Your task to perform on an android device: add a contact Image 0: 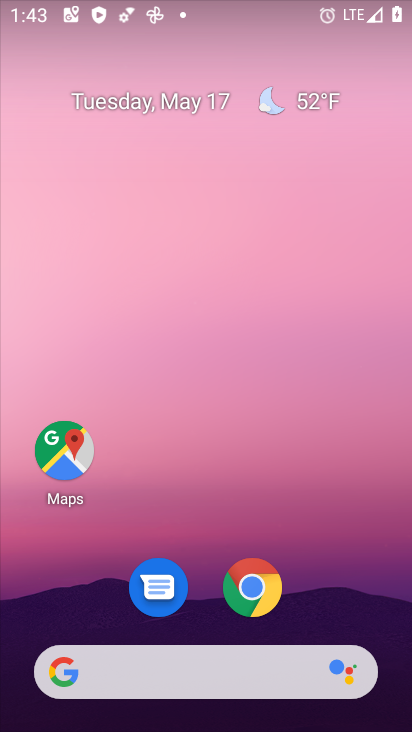
Step 0: drag from (355, 573) to (239, 178)
Your task to perform on an android device: add a contact Image 1: 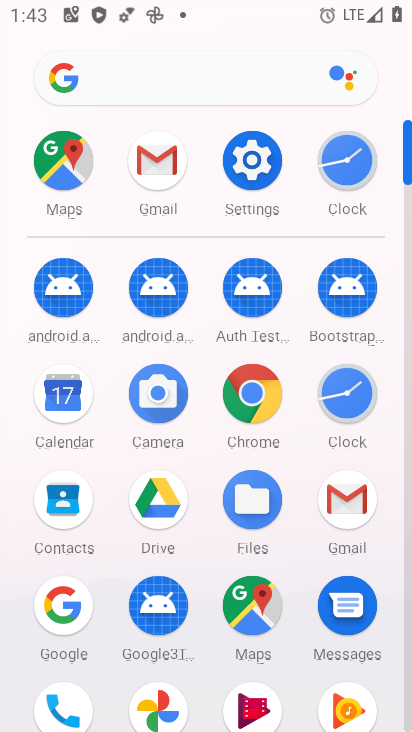
Step 1: click (74, 388)
Your task to perform on an android device: add a contact Image 2: 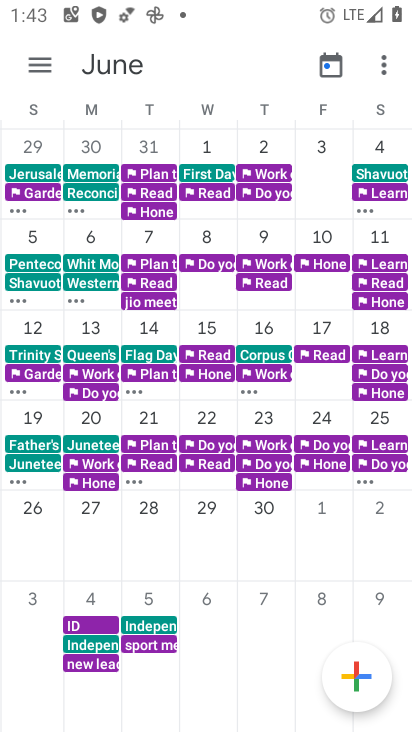
Step 2: press home button
Your task to perform on an android device: add a contact Image 3: 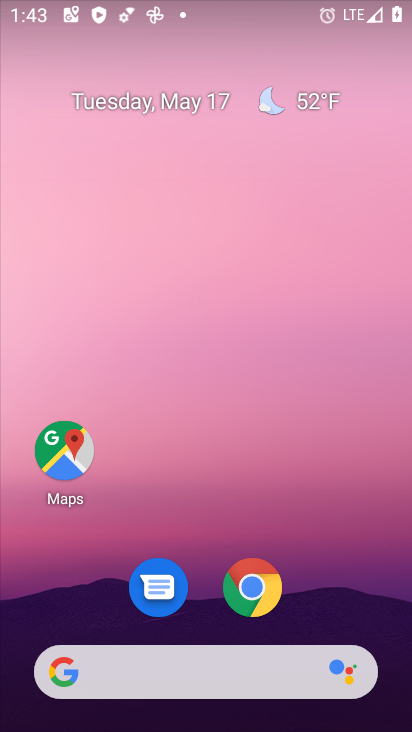
Step 3: drag from (333, 615) to (344, 202)
Your task to perform on an android device: add a contact Image 4: 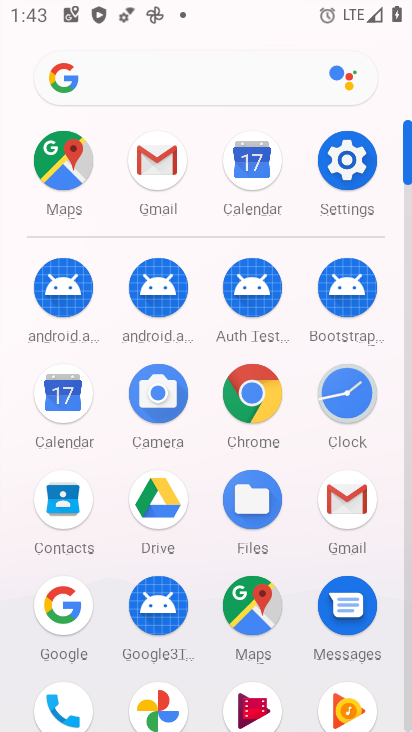
Step 4: click (61, 494)
Your task to perform on an android device: add a contact Image 5: 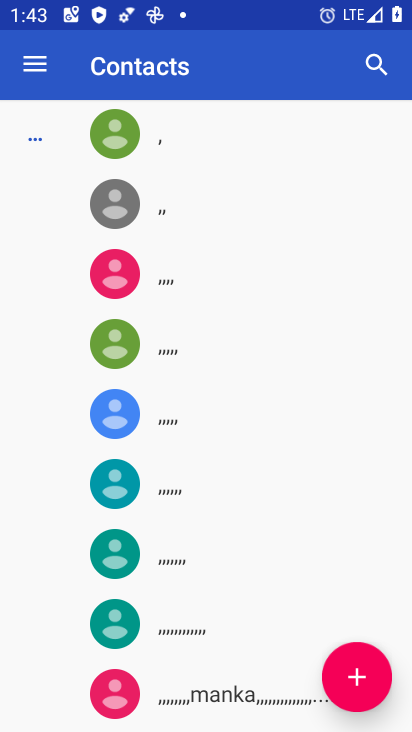
Step 5: click (371, 691)
Your task to perform on an android device: add a contact Image 6: 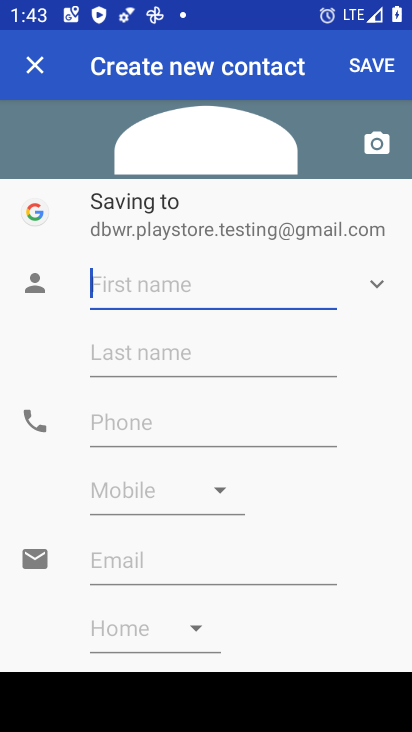
Step 6: type "dfsdfv"
Your task to perform on an android device: add a contact Image 7: 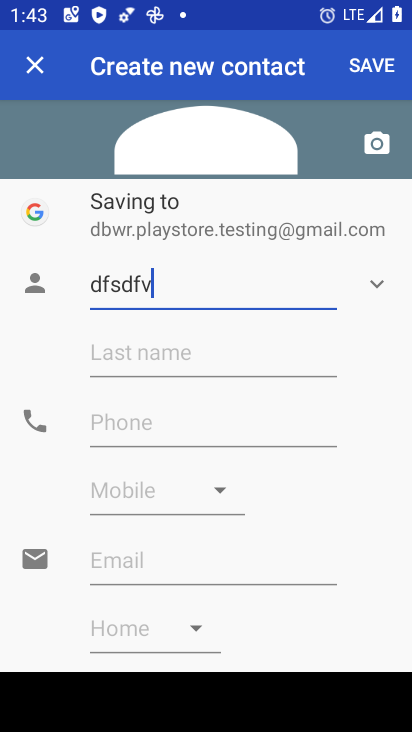
Step 7: click (187, 334)
Your task to perform on an android device: add a contact Image 8: 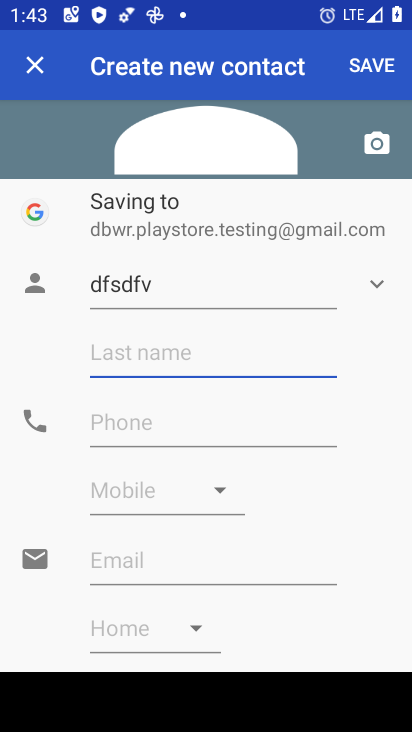
Step 8: type "dfsdgdg"
Your task to perform on an android device: add a contact Image 9: 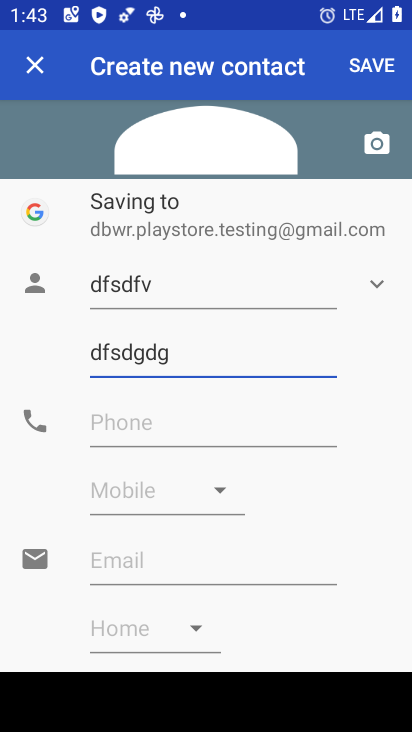
Step 9: click (302, 411)
Your task to perform on an android device: add a contact Image 10: 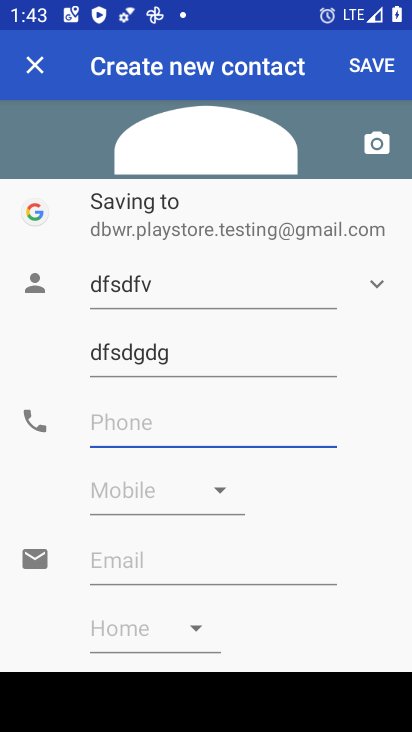
Step 10: type "asdfasfsvfsddv"
Your task to perform on an android device: add a contact Image 11: 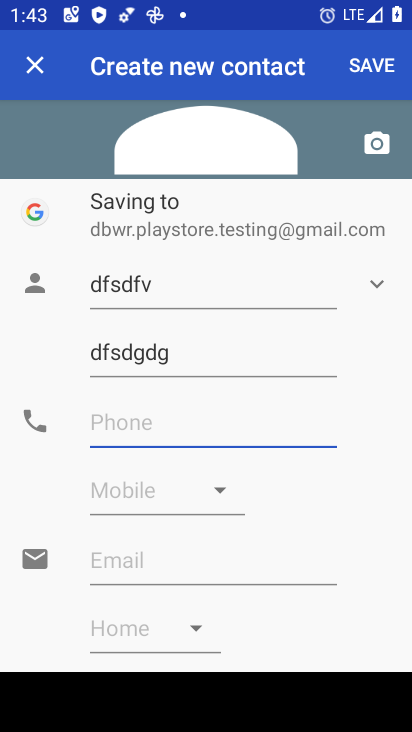
Step 11: click (272, 437)
Your task to perform on an android device: add a contact Image 12: 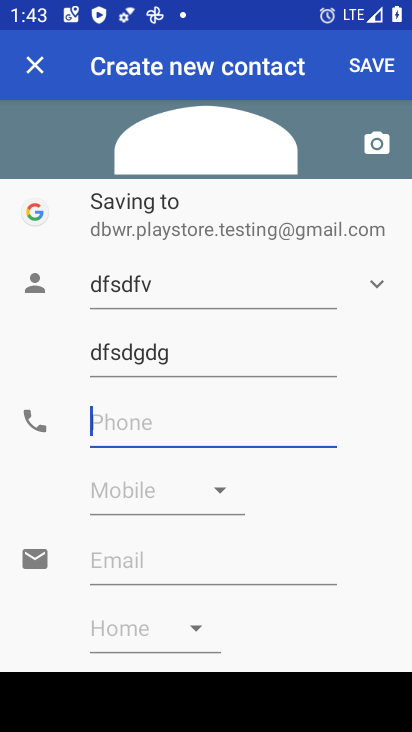
Step 12: click (272, 437)
Your task to perform on an android device: add a contact Image 13: 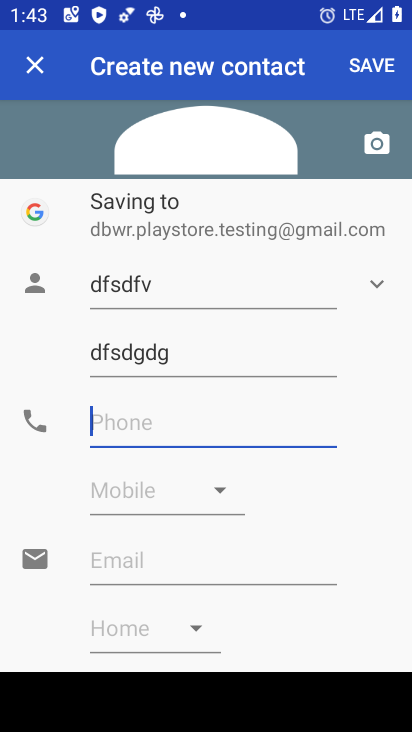
Step 13: type "443534534543"
Your task to perform on an android device: add a contact Image 14: 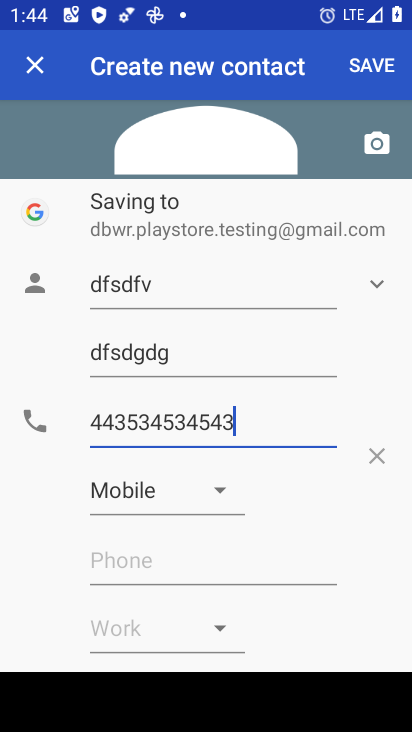
Step 14: click (354, 68)
Your task to perform on an android device: add a contact Image 15: 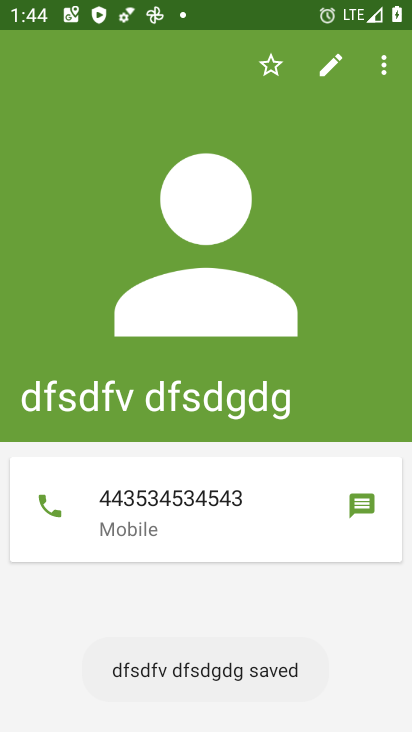
Step 15: task complete